Your task to perform on an android device: Open Chrome and go to settings Image 0: 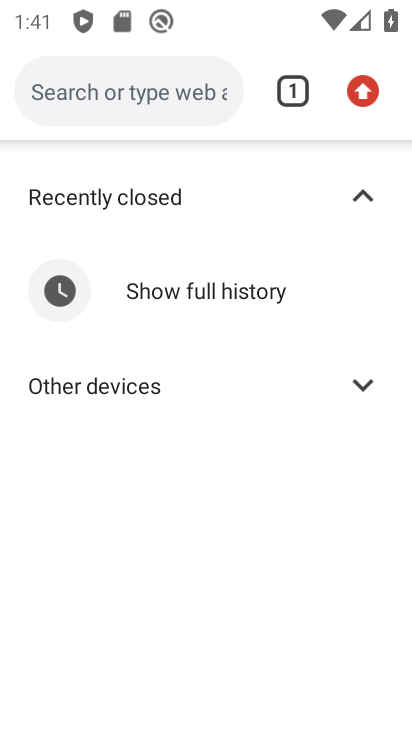
Step 0: drag from (366, 84) to (149, 554)
Your task to perform on an android device: Open Chrome and go to settings Image 1: 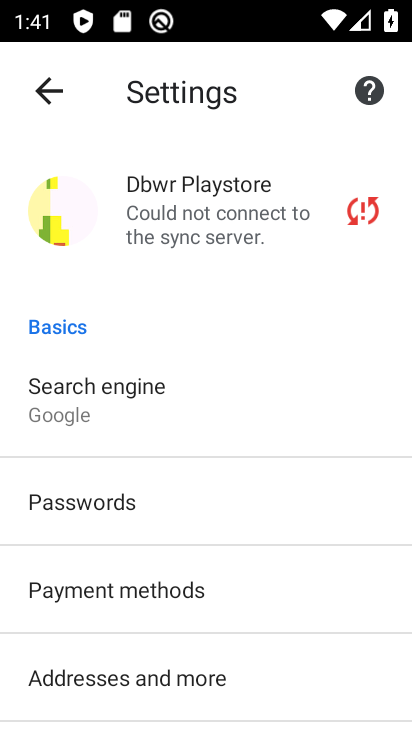
Step 1: task complete